Your task to perform on an android device: Turn on the flashlight Image 0: 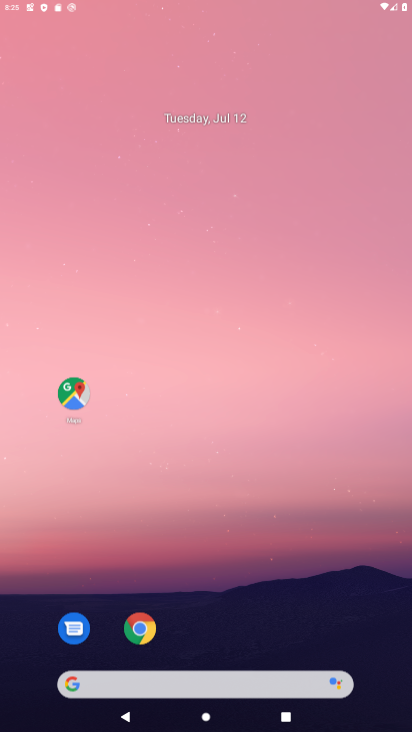
Step 0: click (237, 28)
Your task to perform on an android device: Turn on the flashlight Image 1: 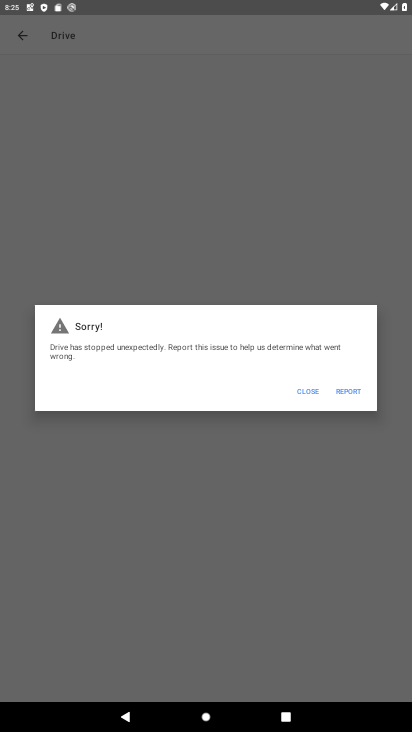
Step 1: click (306, 391)
Your task to perform on an android device: Turn on the flashlight Image 2: 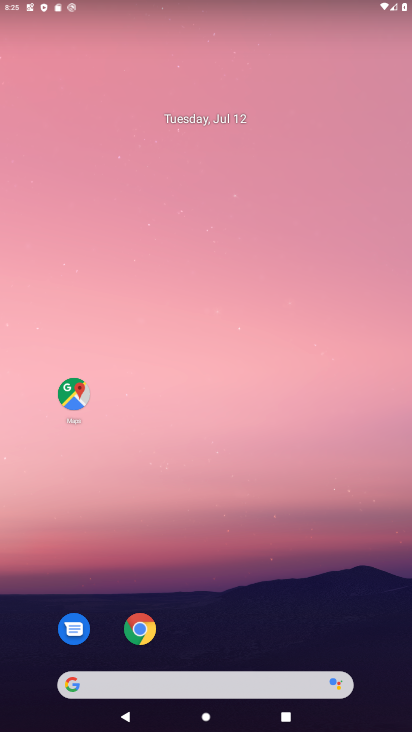
Step 2: drag from (259, 628) to (267, 106)
Your task to perform on an android device: Turn on the flashlight Image 3: 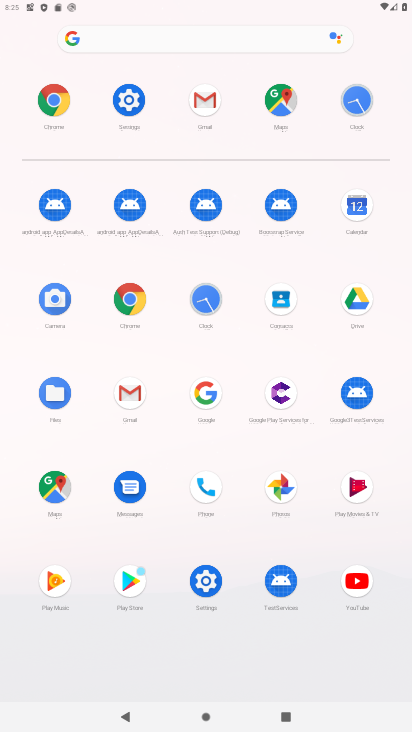
Step 3: click (115, 86)
Your task to perform on an android device: Turn on the flashlight Image 4: 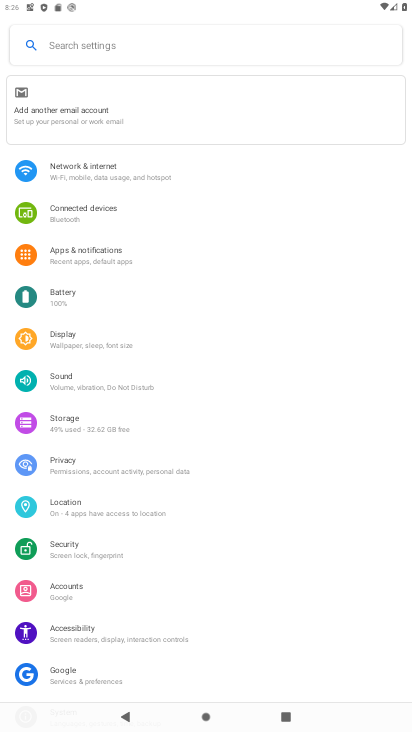
Step 4: task complete